Your task to perform on an android device: toggle pop-ups in chrome Image 0: 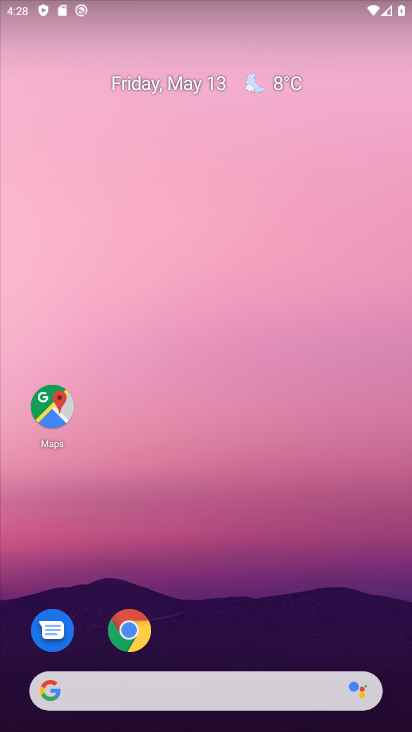
Step 0: click (121, 636)
Your task to perform on an android device: toggle pop-ups in chrome Image 1: 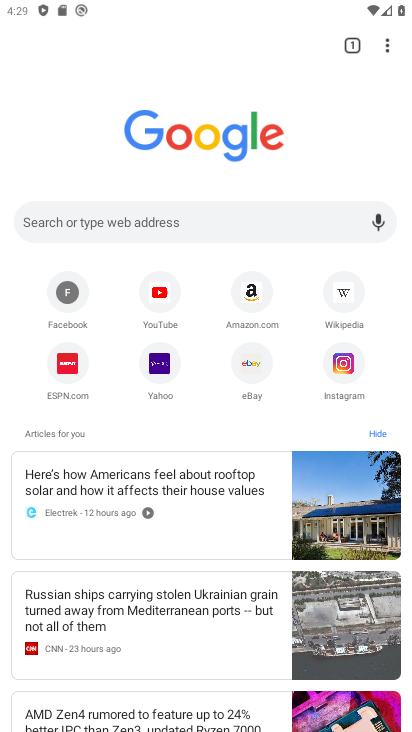
Step 1: drag from (387, 55) to (284, 378)
Your task to perform on an android device: toggle pop-ups in chrome Image 2: 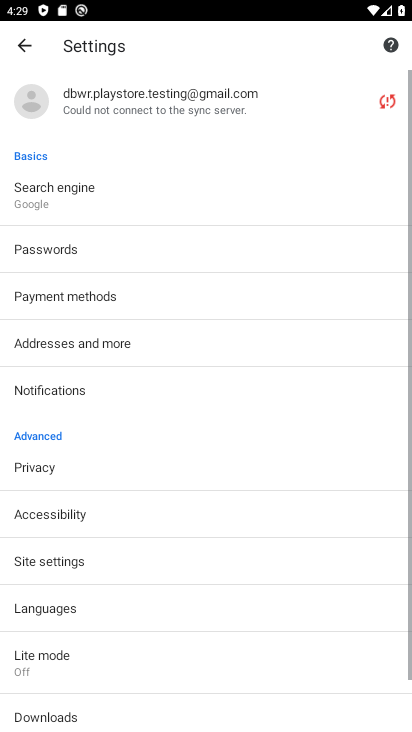
Step 2: drag from (143, 679) to (224, 410)
Your task to perform on an android device: toggle pop-ups in chrome Image 3: 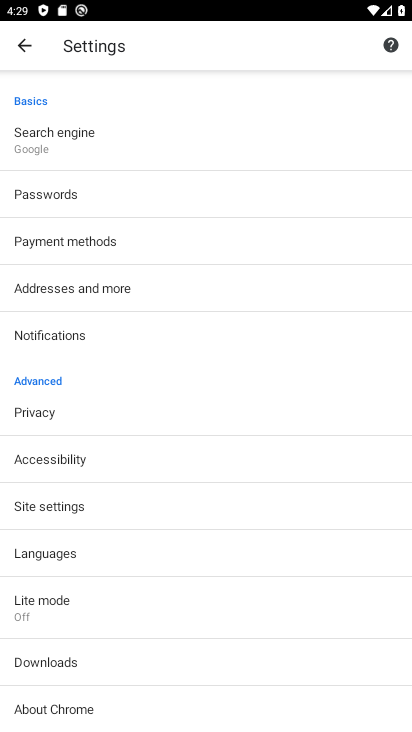
Step 3: click (104, 510)
Your task to perform on an android device: toggle pop-ups in chrome Image 4: 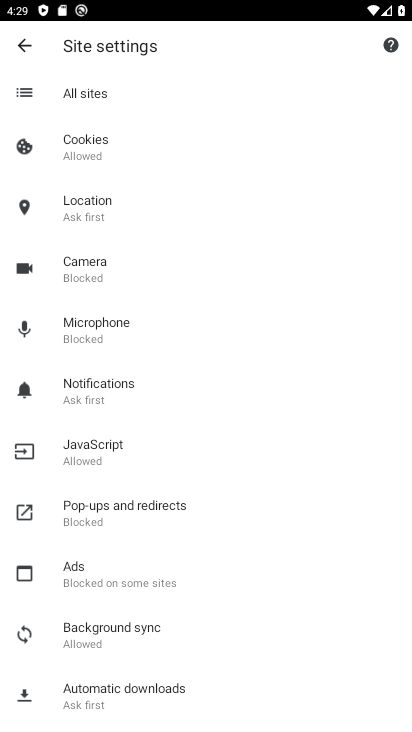
Step 4: click (178, 518)
Your task to perform on an android device: toggle pop-ups in chrome Image 5: 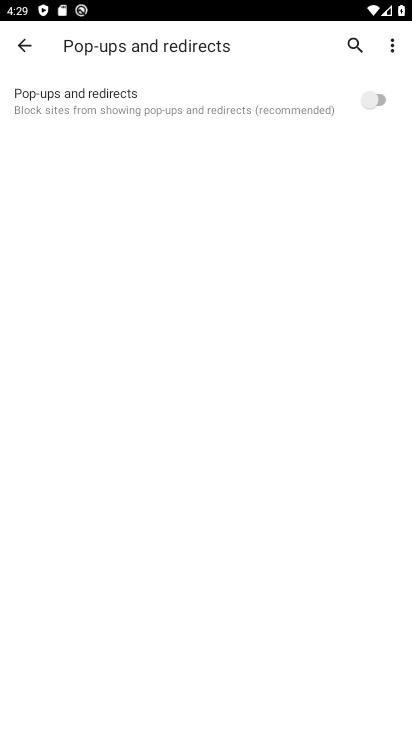
Step 5: click (383, 97)
Your task to perform on an android device: toggle pop-ups in chrome Image 6: 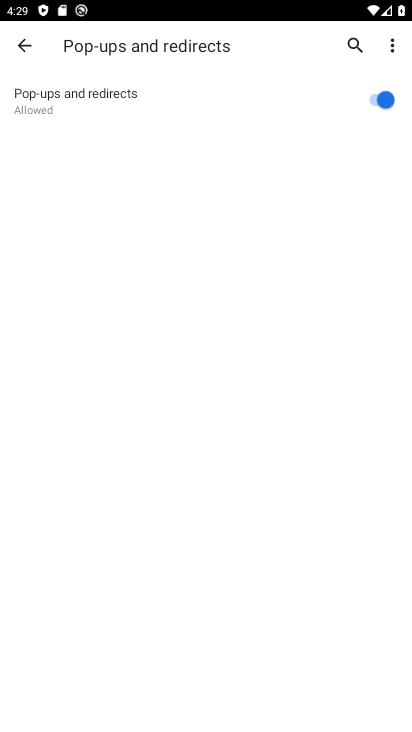
Step 6: task complete